Your task to perform on an android device: Go to notification settings Image 0: 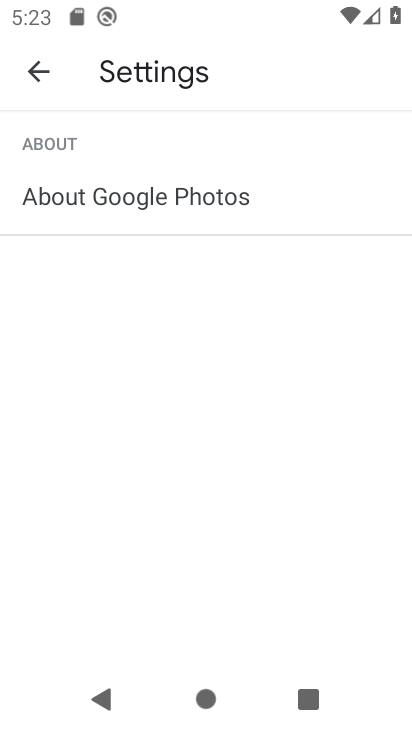
Step 0: press home button
Your task to perform on an android device: Go to notification settings Image 1: 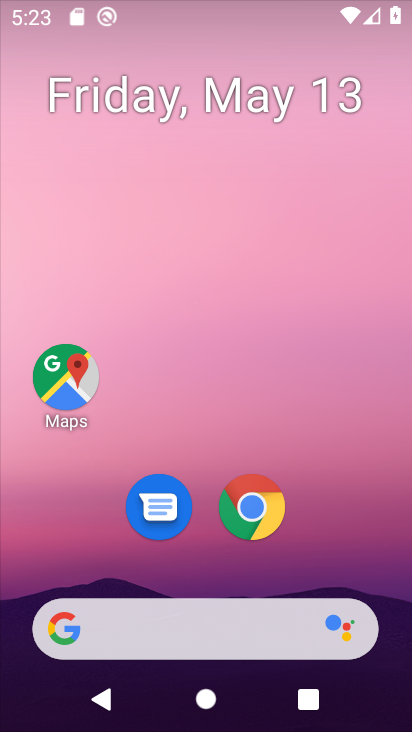
Step 1: drag from (343, 544) to (229, 125)
Your task to perform on an android device: Go to notification settings Image 2: 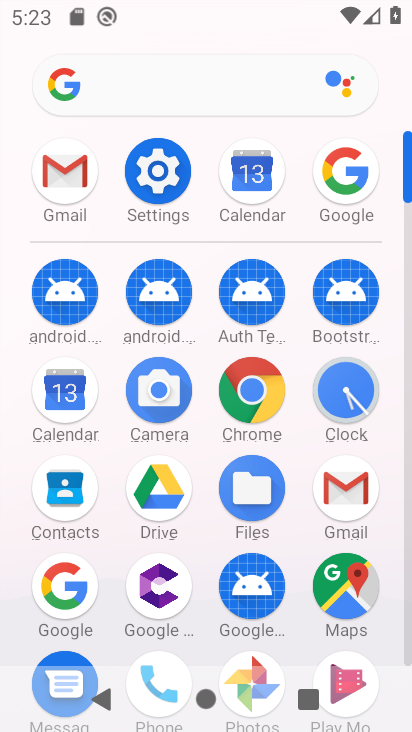
Step 2: click (159, 187)
Your task to perform on an android device: Go to notification settings Image 3: 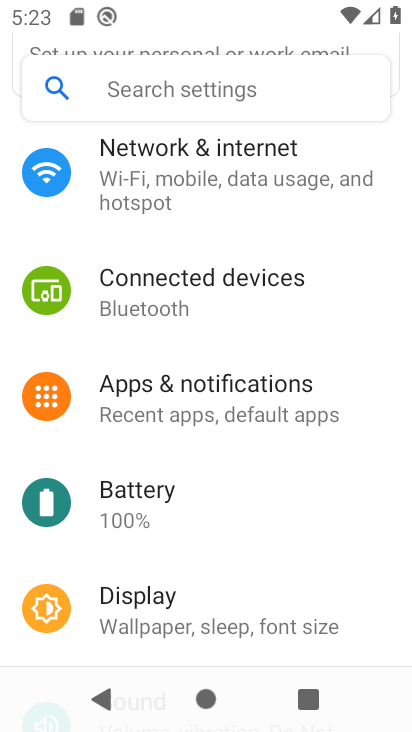
Step 3: click (230, 414)
Your task to perform on an android device: Go to notification settings Image 4: 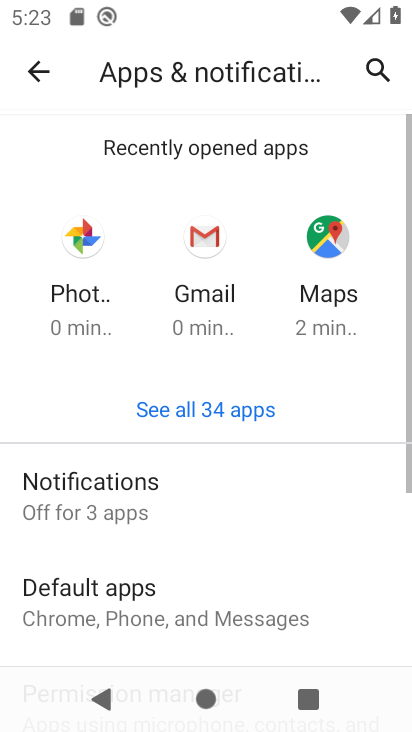
Step 4: task complete